Your task to perform on an android device: find snoozed emails in the gmail app Image 0: 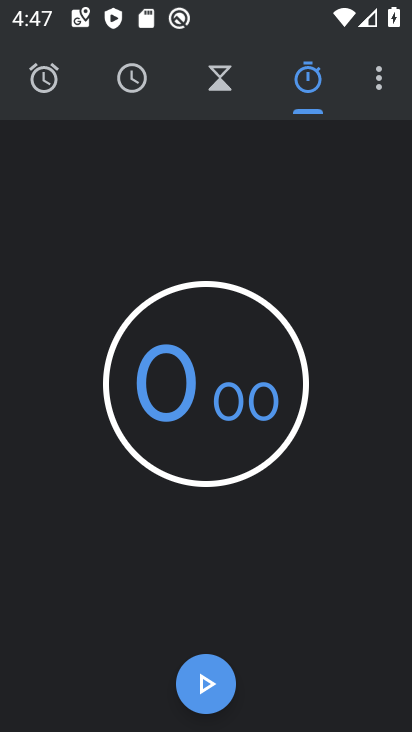
Step 0: press back button
Your task to perform on an android device: find snoozed emails in the gmail app Image 1: 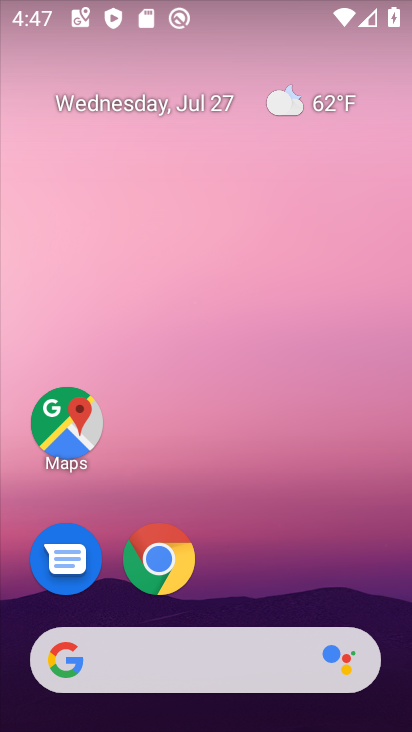
Step 1: drag from (284, 598) to (346, 130)
Your task to perform on an android device: find snoozed emails in the gmail app Image 2: 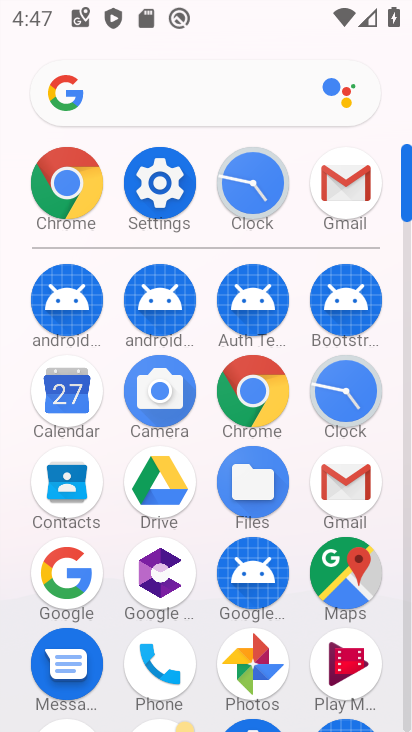
Step 2: click (347, 175)
Your task to perform on an android device: find snoozed emails in the gmail app Image 3: 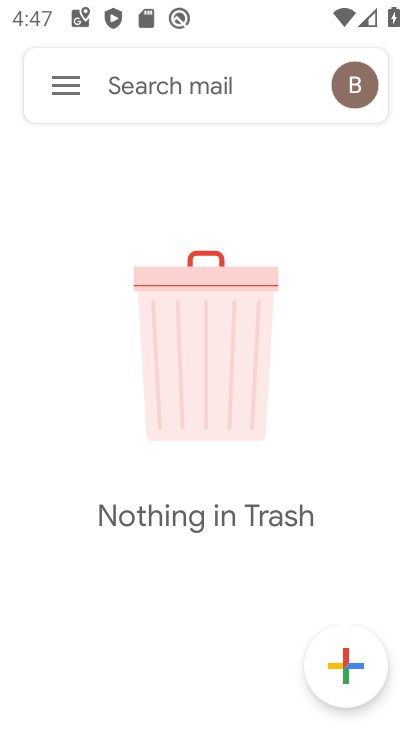
Step 3: click (61, 90)
Your task to perform on an android device: find snoozed emails in the gmail app Image 4: 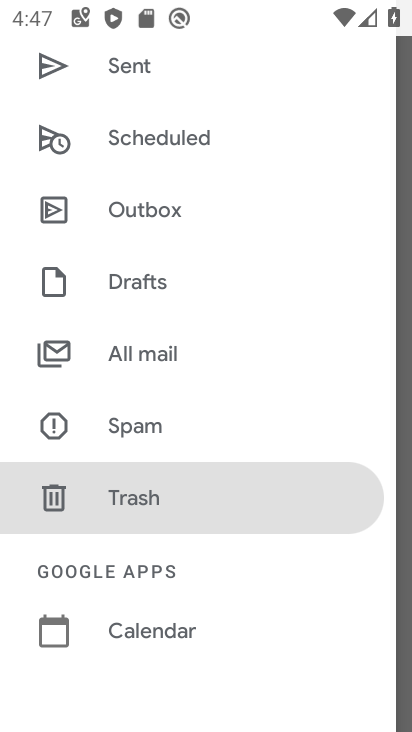
Step 4: drag from (189, 163) to (189, 479)
Your task to perform on an android device: find snoozed emails in the gmail app Image 5: 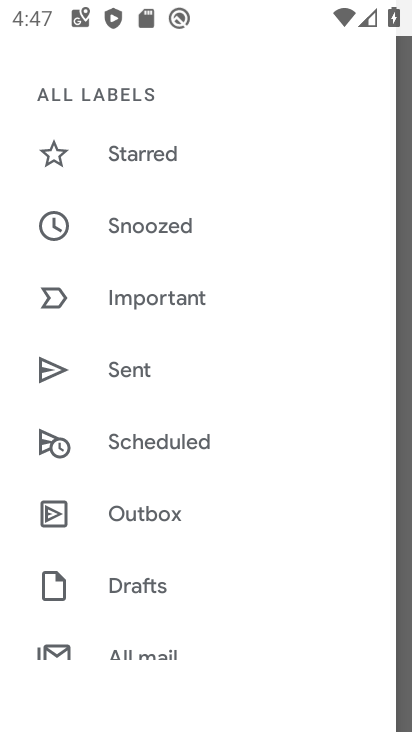
Step 5: click (161, 221)
Your task to perform on an android device: find snoozed emails in the gmail app Image 6: 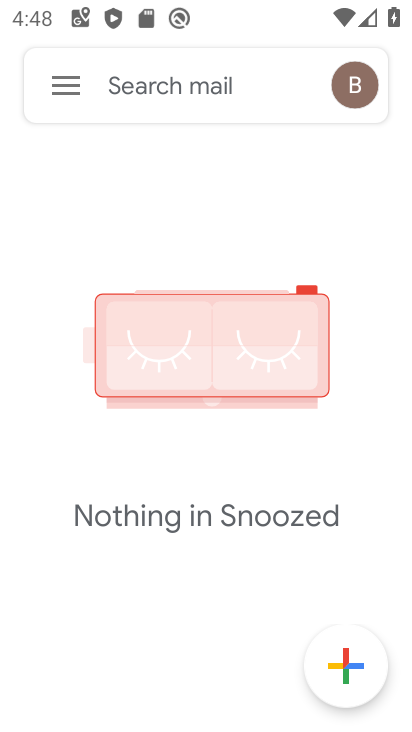
Step 6: task complete